Your task to perform on an android device: turn on the 12-hour format for clock Image 0: 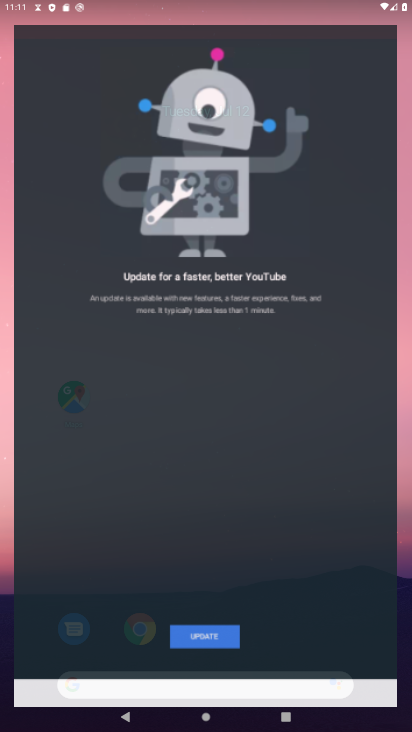
Step 0: drag from (348, 620) to (335, 74)
Your task to perform on an android device: turn on the 12-hour format for clock Image 1: 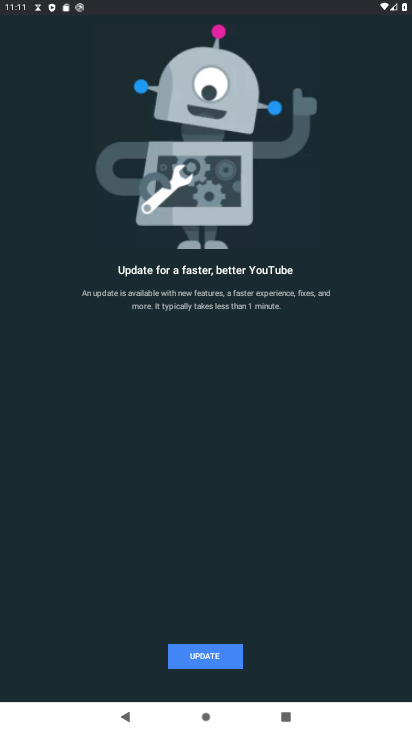
Step 1: press home button
Your task to perform on an android device: turn on the 12-hour format for clock Image 2: 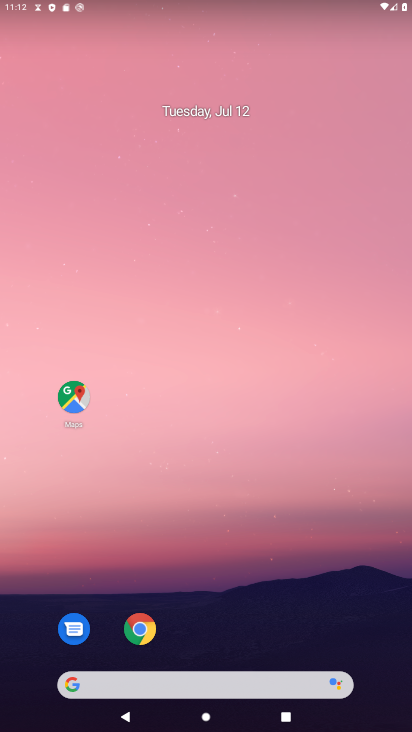
Step 2: drag from (287, 618) to (332, 89)
Your task to perform on an android device: turn on the 12-hour format for clock Image 3: 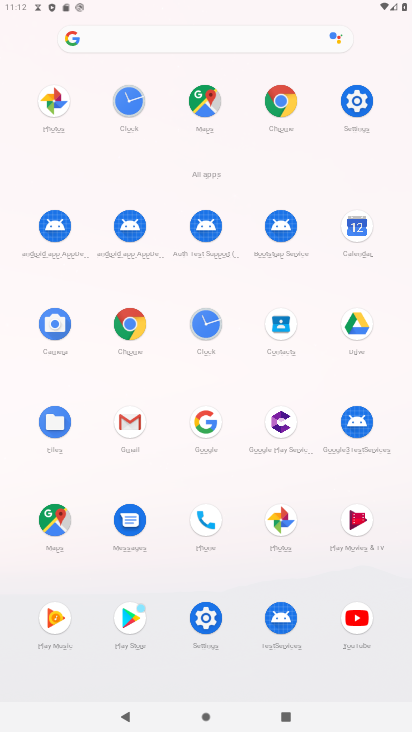
Step 3: click (219, 335)
Your task to perform on an android device: turn on the 12-hour format for clock Image 4: 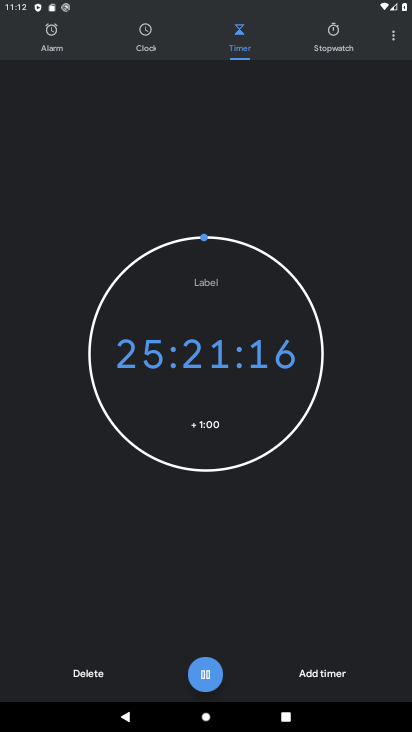
Step 4: click (382, 34)
Your task to perform on an android device: turn on the 12-hour format for clock Image 5: 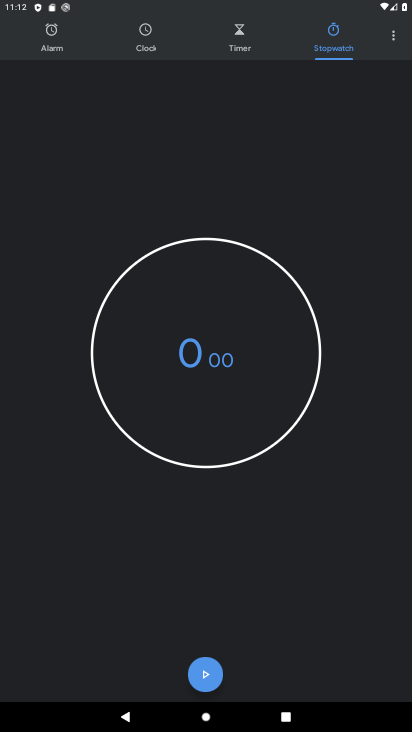
Step 5: click (387, 48)
Your task to perform on an android device: turn on the 12-hour format for clock Image 6: 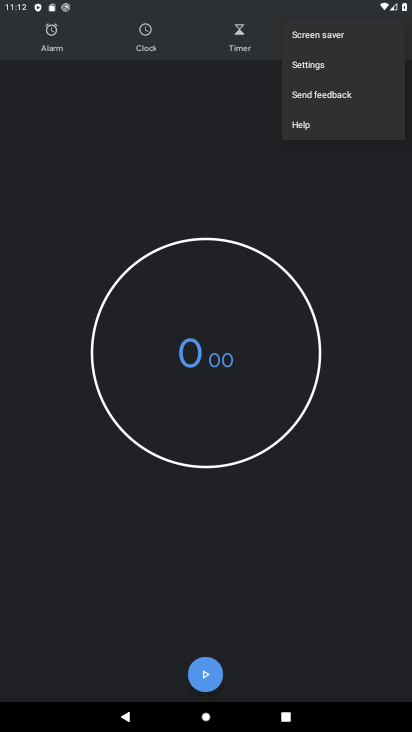
Step 6: click (324, 76)
Your task to perform on an android device: turn on the 12-hour format for clock Image 7: 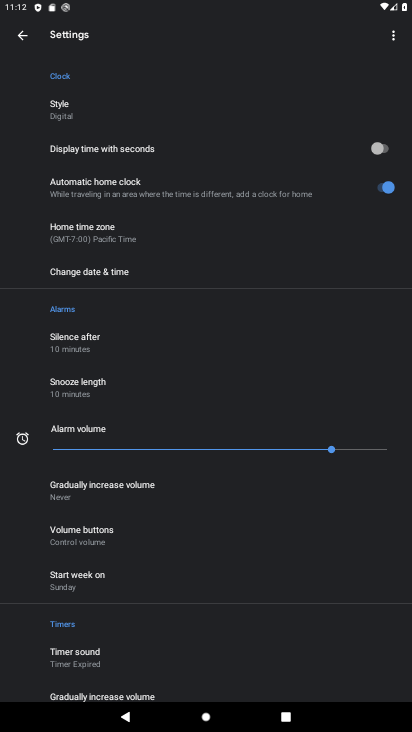
Step 7: click (77, 274)
Your task to perform on an android device: turn on the 12-hour format for clock Image 8: 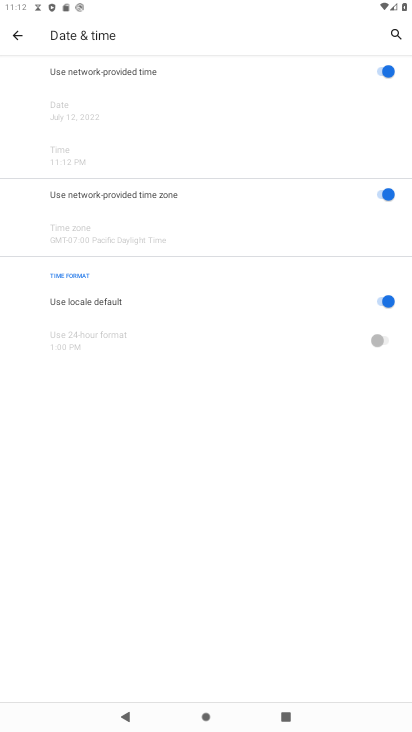
Step 8: task complete